Your task to perform on an android device: change text size in settings app Image 0: 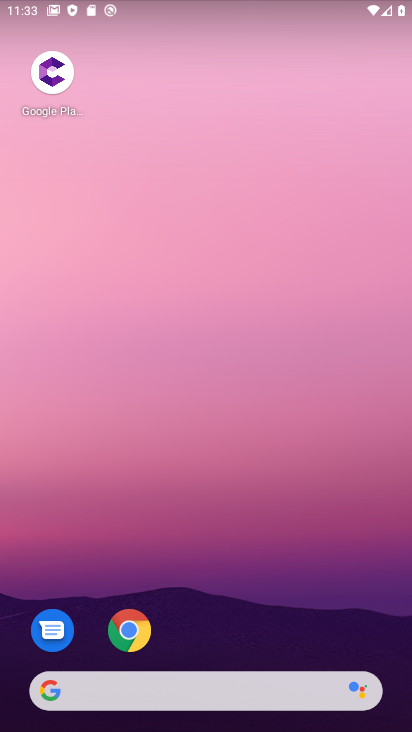
Step 0: drag from (205, 578) to (3, 549)
Your task to perform on an android device: change text size in settings app Image 1: 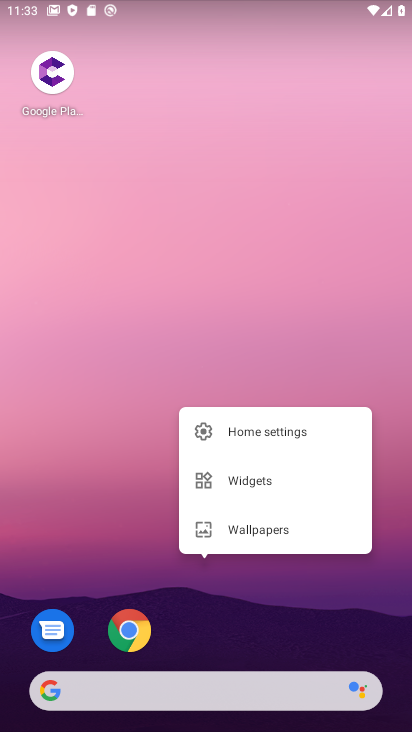
Step 1: click (114, 545)
Your task to perform on an android device: change text size in settings app Image 2: 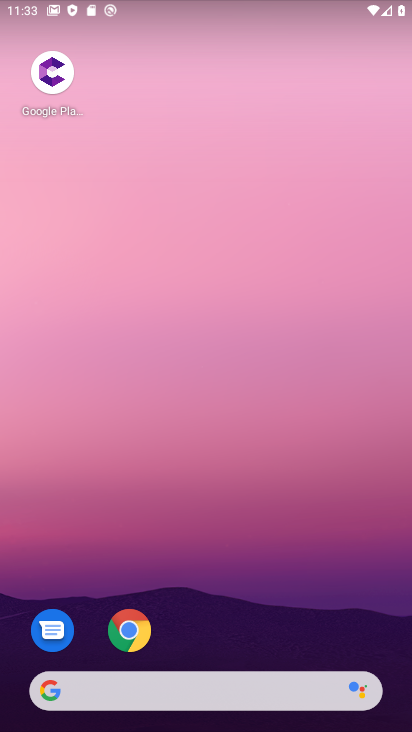
Step 2: drag from (114, 545) to (235, 614)
Your task to perform on an android device: change text size in settings app Image 3: 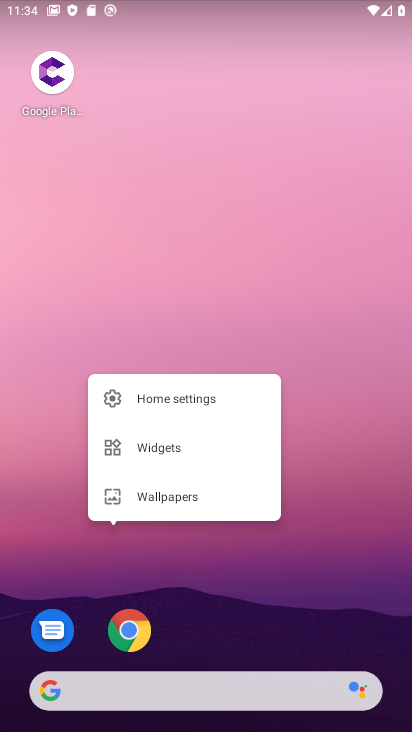
Step 3: click (318, 312)
Your task to perform on an android device: change text size in settings app Image 4: 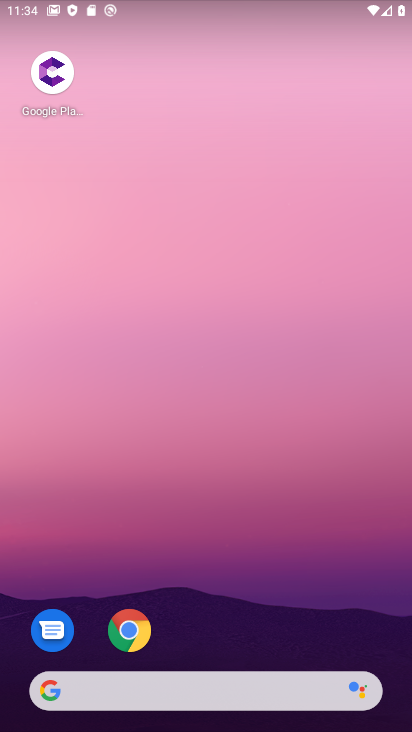
Step 4: drag from (210, 620) to (277, 5)
Your task to perform on an android device: change text size in settings app Image 5: 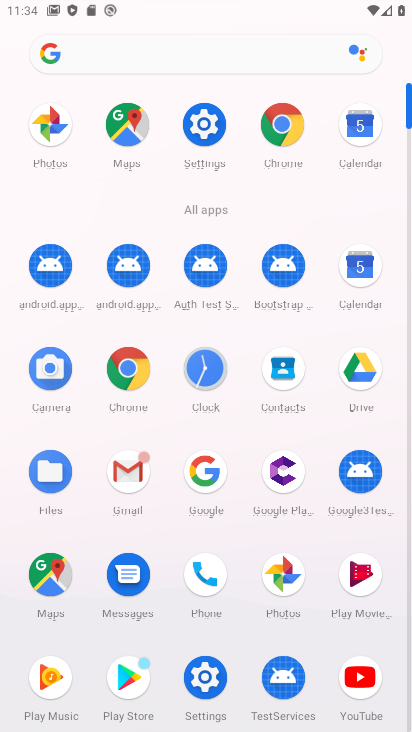
Step 5: click (201, 136)
Your task to perform on an android device: change text size in settings app Image 6: 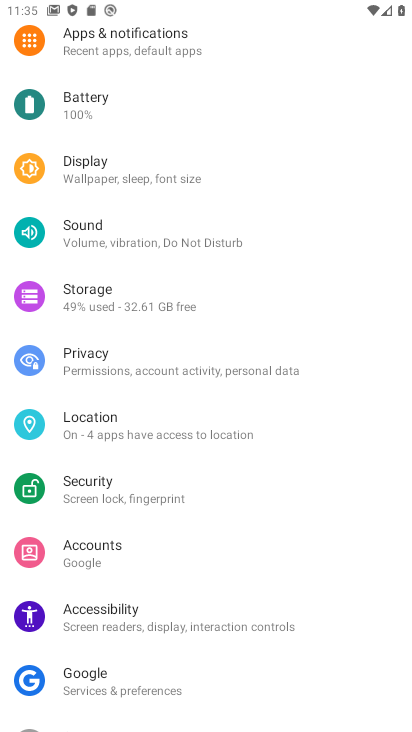
Step 6: click (148, 175)
Your task to perform on an android device: change text size in settings app Image 7: 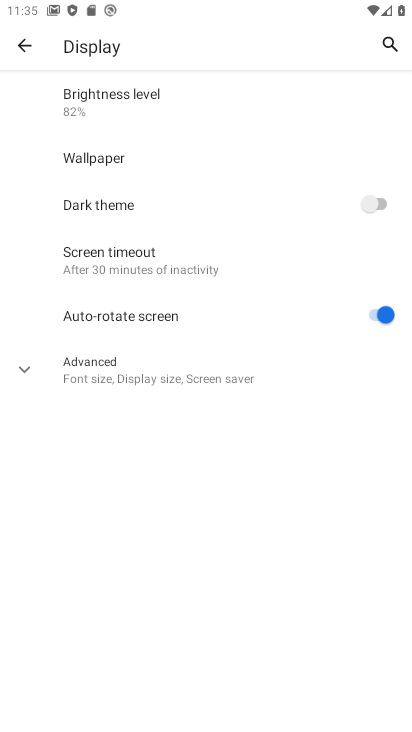
Step 7: click (103, 371)
Your task to perform on an android device: change text size in settings app Image 8: 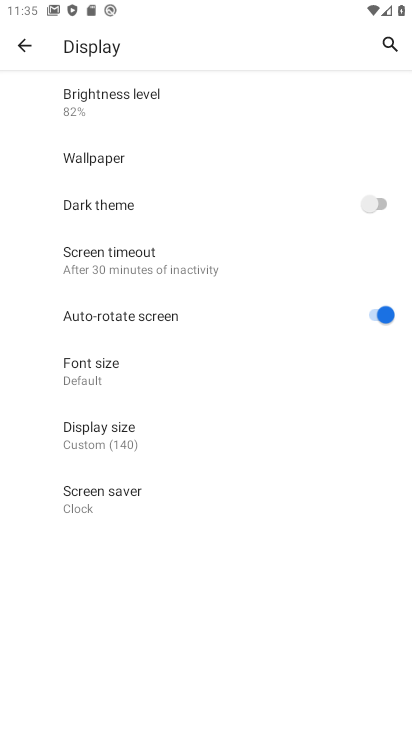
Step 8: click (103, 371)
Your task to perform on an android device: change text size in settings app Image 9: 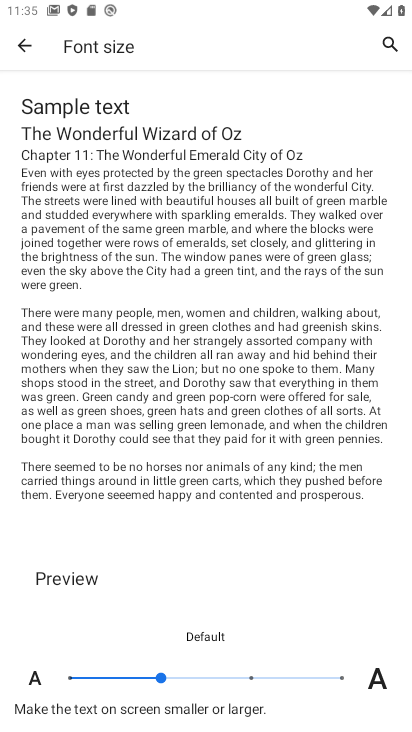
Step 9: click (375, 690)
Your task to perform on an android device: change text size in settings app Image 10: 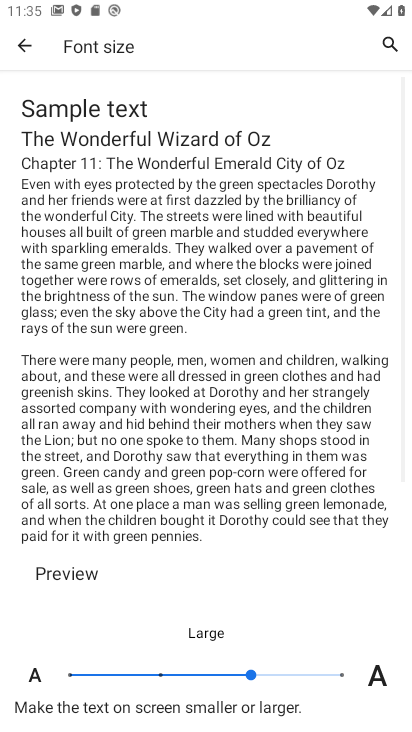
Step 10: task complete